Your task to perform on an android device: Open the web browser Image 0: 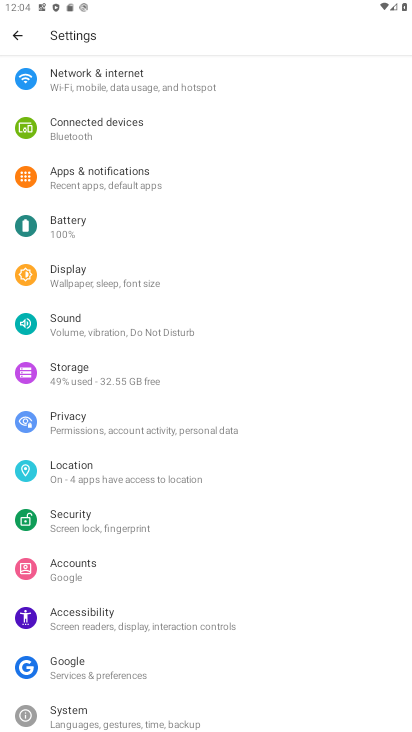
Step 0: press home button
Your task to perform on an android device: Open the web browser Image 1: 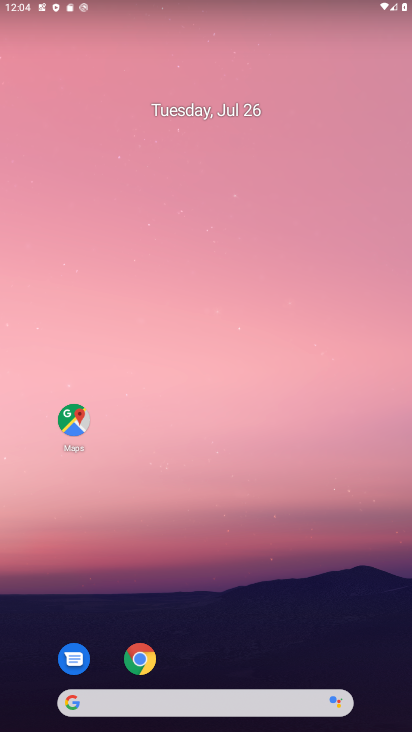
Step 1: click (140, 663)
Your task to perform on an android device: Open the web browser Image 2: 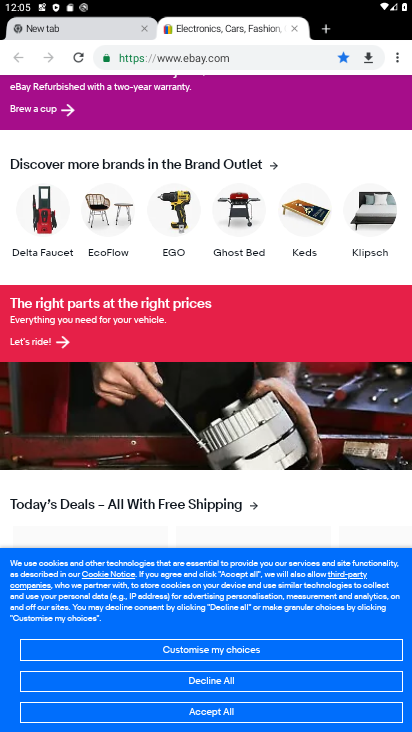
Step 2: task complete